Your task to perform on an android device: Open calendar and show me the first week of next month Image 0: 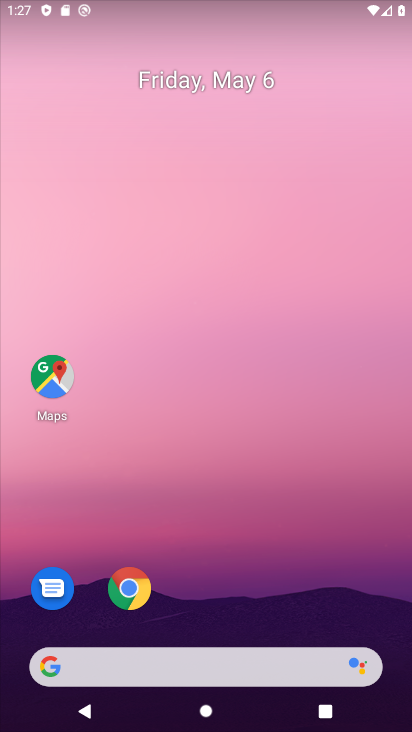
Step 0: drag from (390, 626) to (389, 171)
Your task to perform on an android device: Open calendar and show me the first week of next month Image 1: 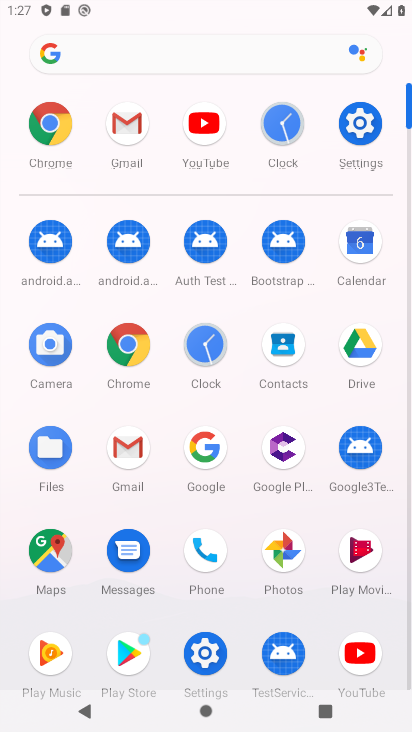
Step 1: click (353, 246)
Your task to perform on an android device: Open calendar and show me the first week of next month Image 2: 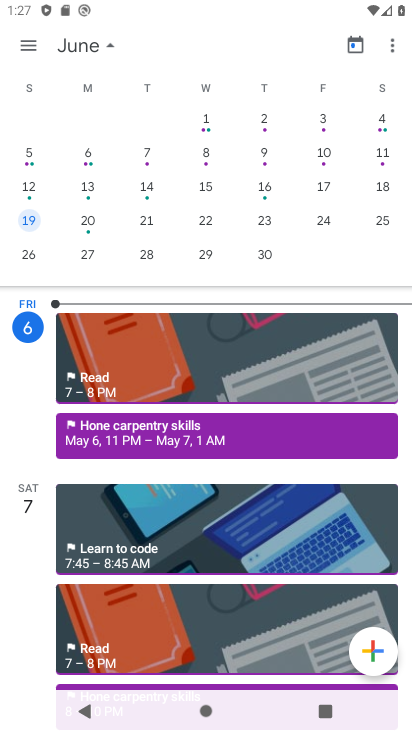
Step 2: click (207, 118)
Your task to perform on an android device: Open calendar and show me the first week of next month Image 3: 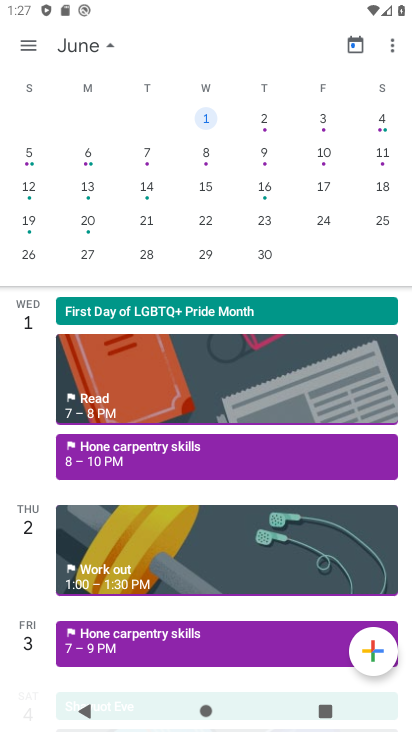
Step 3: task complete